Your task to perform on an android device: What's on the menu at Pizza Hut? Image 0: 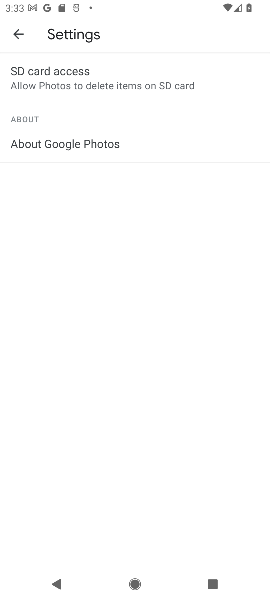
Step 0: press home button
Your task to perform on an android device: What's on the menu at Pizza Hut? Image 1: 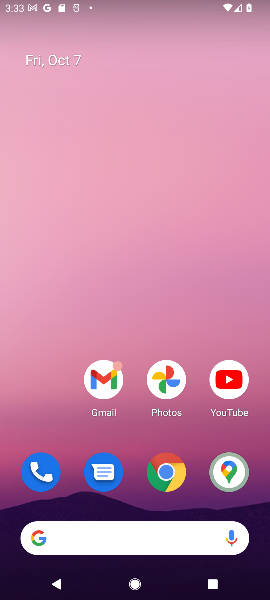
Step 1: click (164, 473)
Your task to perform on an android device: What's on the menu at Pizza Hut? Image 2: 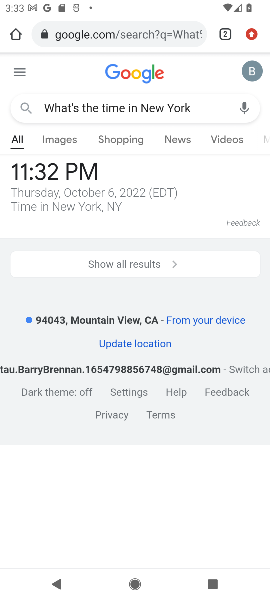
Step 2: click (150, 38)
Your task to perform on an android device: What's on the menu at Pizza Hut? Image 3: 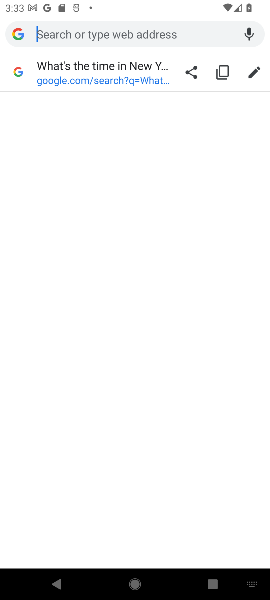
Step 3: type "What's on the menu at Pizza Hut?"
Your task to perform on an android device: What's on the menu at Pizza Hut? Image 4: 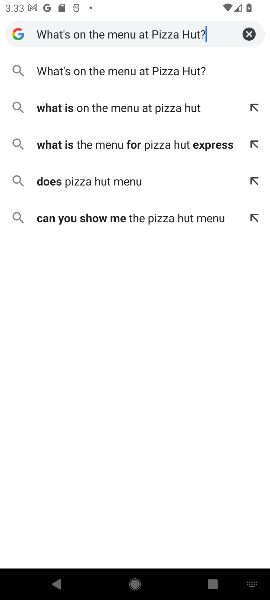
Step 4: click (116, 69)
Your task to perform on an android device: What's on the menu at Pizza Hut? Image 5: 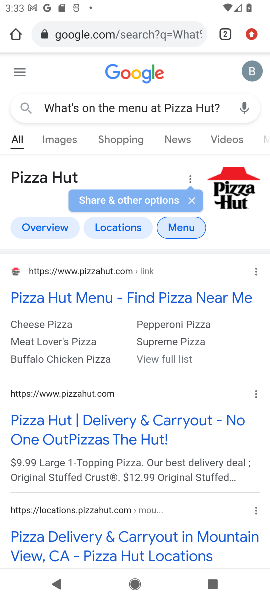
Step 5: click (136, 300)
Your task to perform on an android device: What's on the menu at Pizza Hut? Image 6: 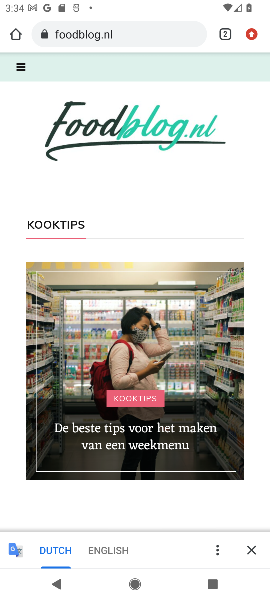
Step 6: task complete